Your task to perform on an android device: turn on wifi Image 0: 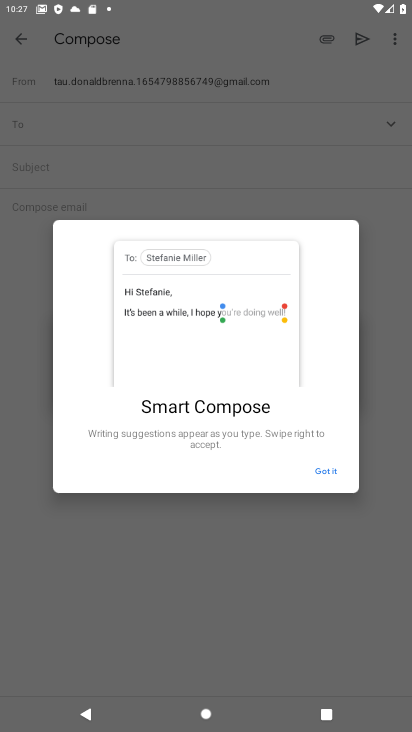
Step 0: press home button
Your task to perform on an android device: turn on wifi Image 1: 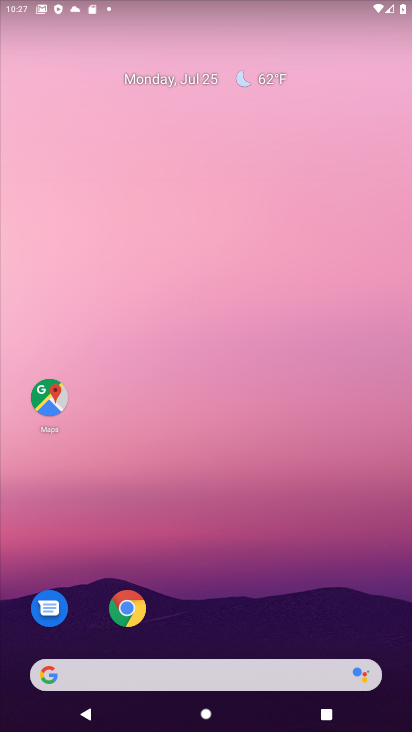
Step 1: drag from (197, 600) to (206, 149)
Your task to perform on an android device: turn on wifi Image 2: 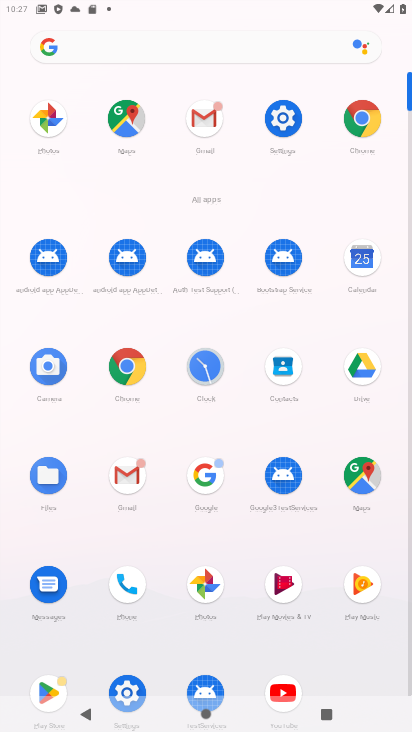
Step 2: click (286, 136)
Your task to perform on an android device: turn on wifi Image 3: 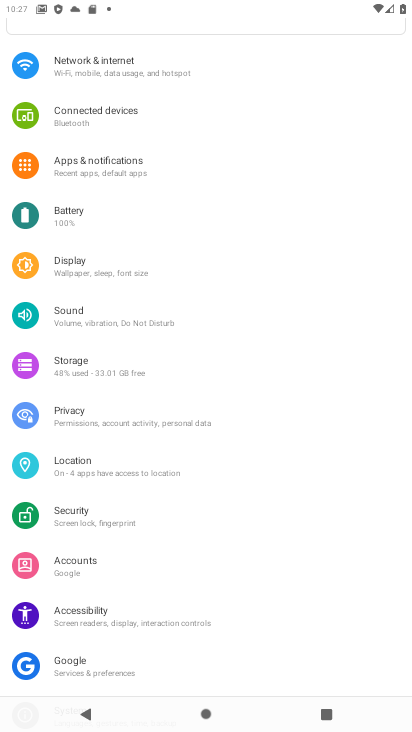
Step 3: click (90, 72)
Your task to perform on an android device: turn on wifi Image 4: 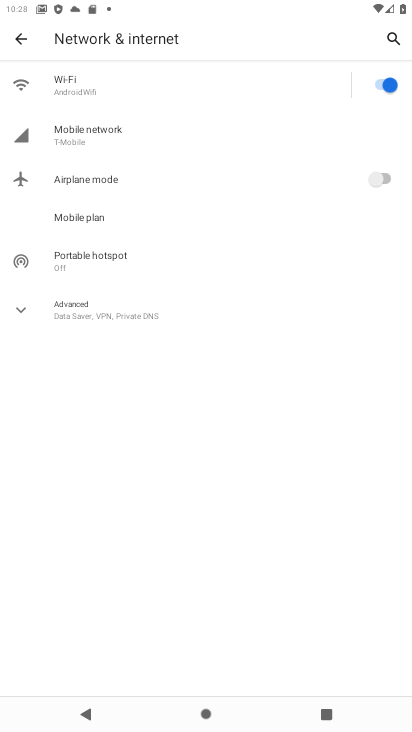
Step 4: task complete